Your task to perform on an android device: Show me recent news Image 0: 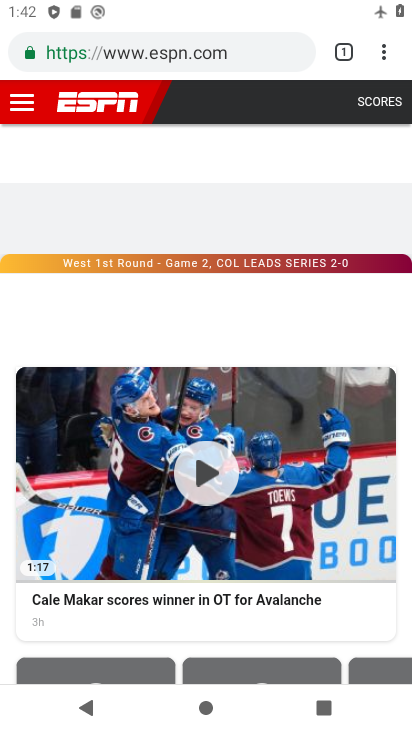
Step 0: press home button
Your task to perform on an android device: Show me recent news Image 1: 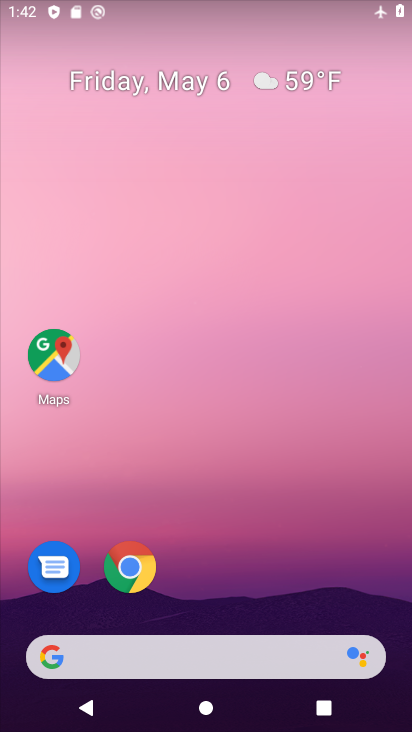
Step 1: drag from (229, 531) to (186, 15)
Your task to perform on an android device: Show me recent news Image 2: 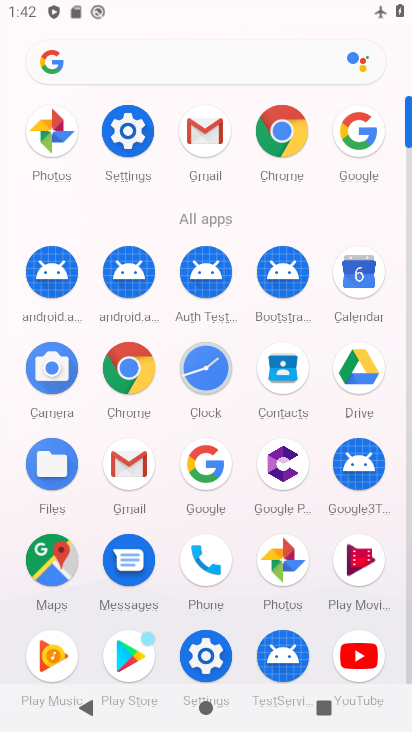
Step 2: click (358, 128)
Your task to perform on an android device: Show me recent news Image 3: 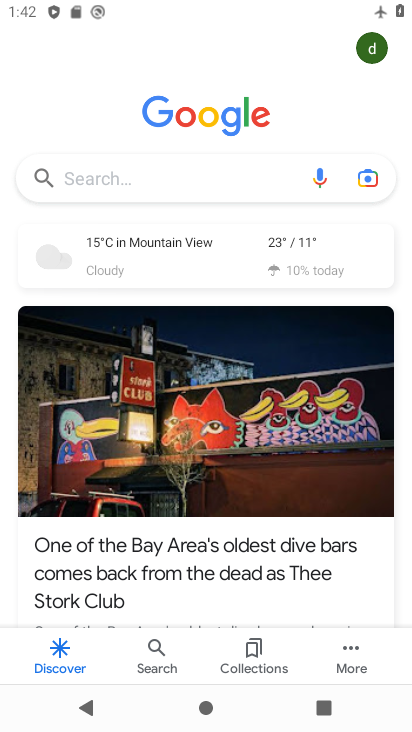
Step 3: click (214, 157)
Your task to perform on an android device: Show me recent news Image 4: 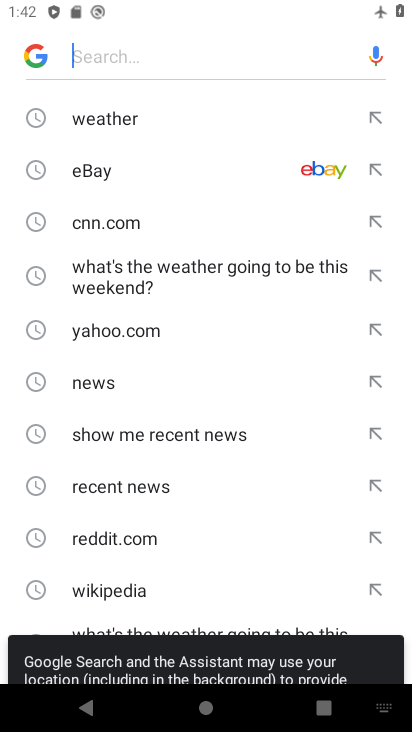
Step 4: click (127, 484)
Your task to perform on an android device: Show me recent news Image 5: 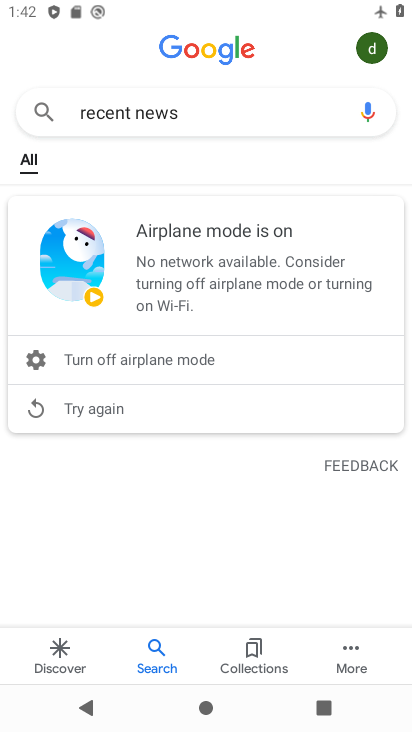
Step 5: task complete